Your task to perform on an android device: How much does a 2 bedroom apartment rent for in San Francisco? Image 0: 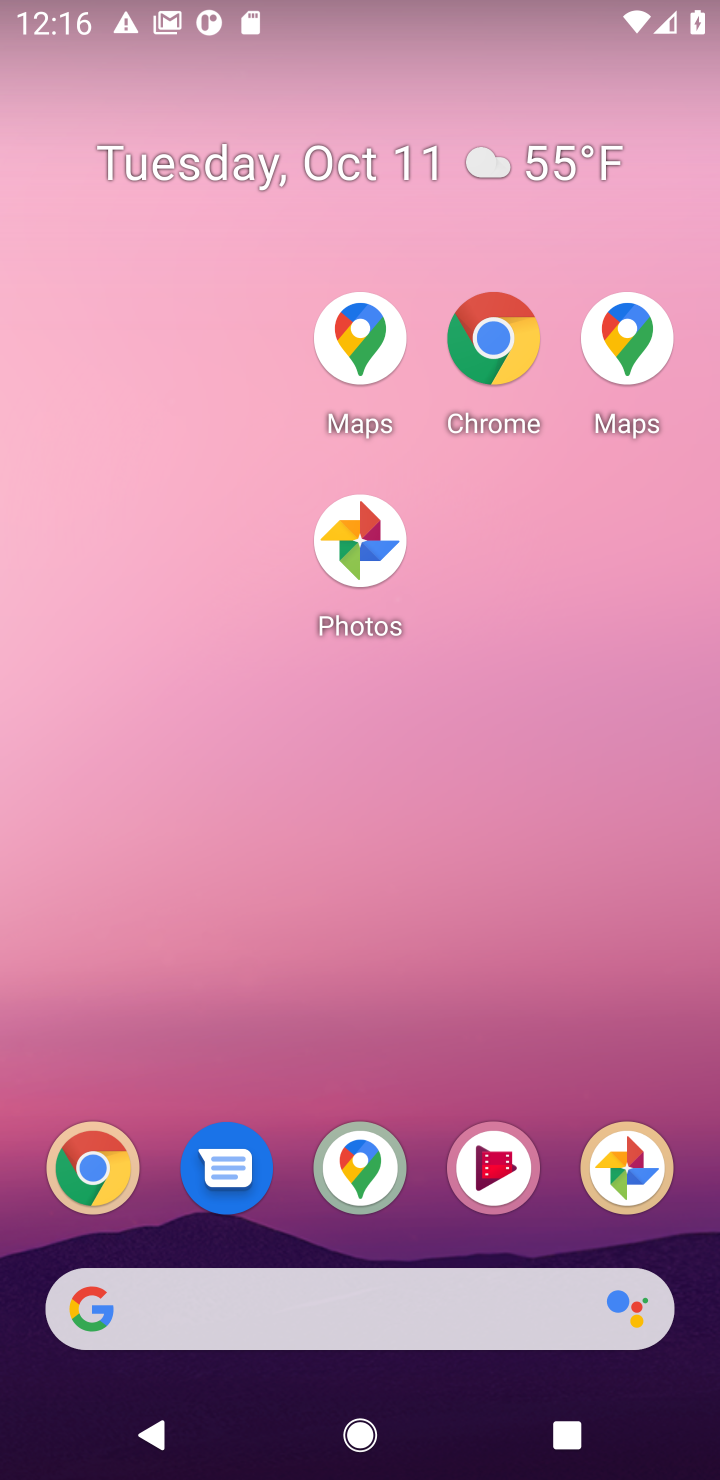
Step 0: drag from (375, 1216) to (375, 532)
Your task to perform on an android device: How much does a 2 bedroom apartment rent for in San Francisco? Image 1: 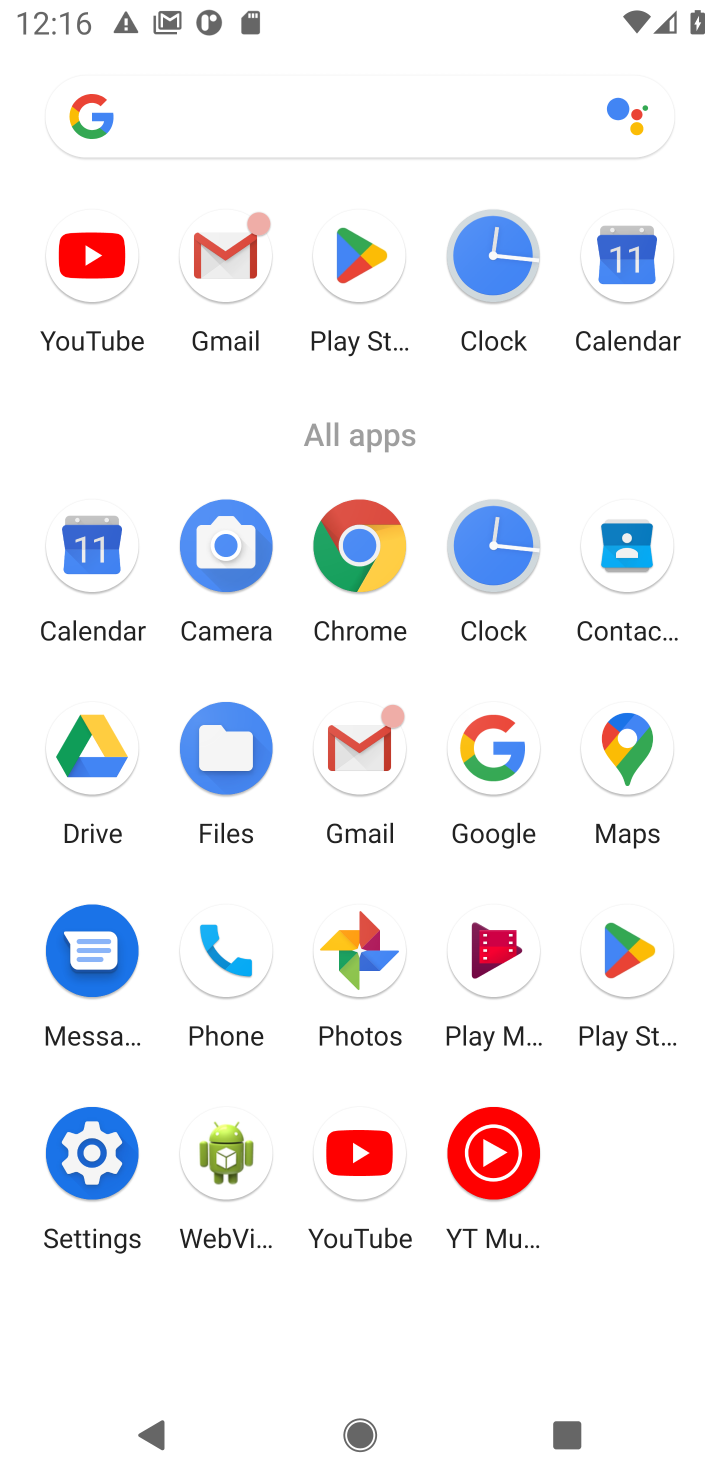
Step 1: drag from (597, 1464) to (719, 949)
Your task to perform on an android device: How much does a 2 bedroom apartment rent for in San Francisco? Image 2: 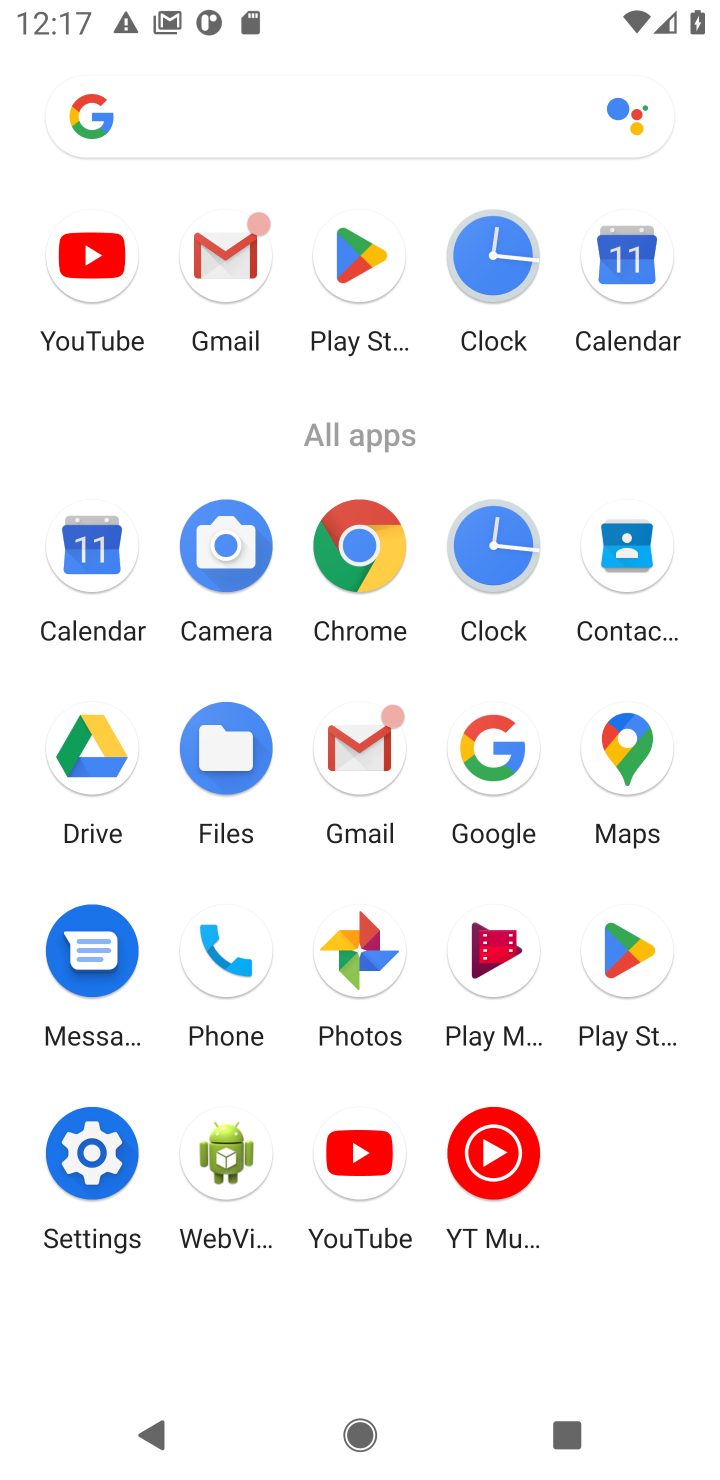
Step 2: click (528, 775)
Your task to perform on an android device: How much does a 2 bedroom apartment rent for in San Francisco? Image 3: 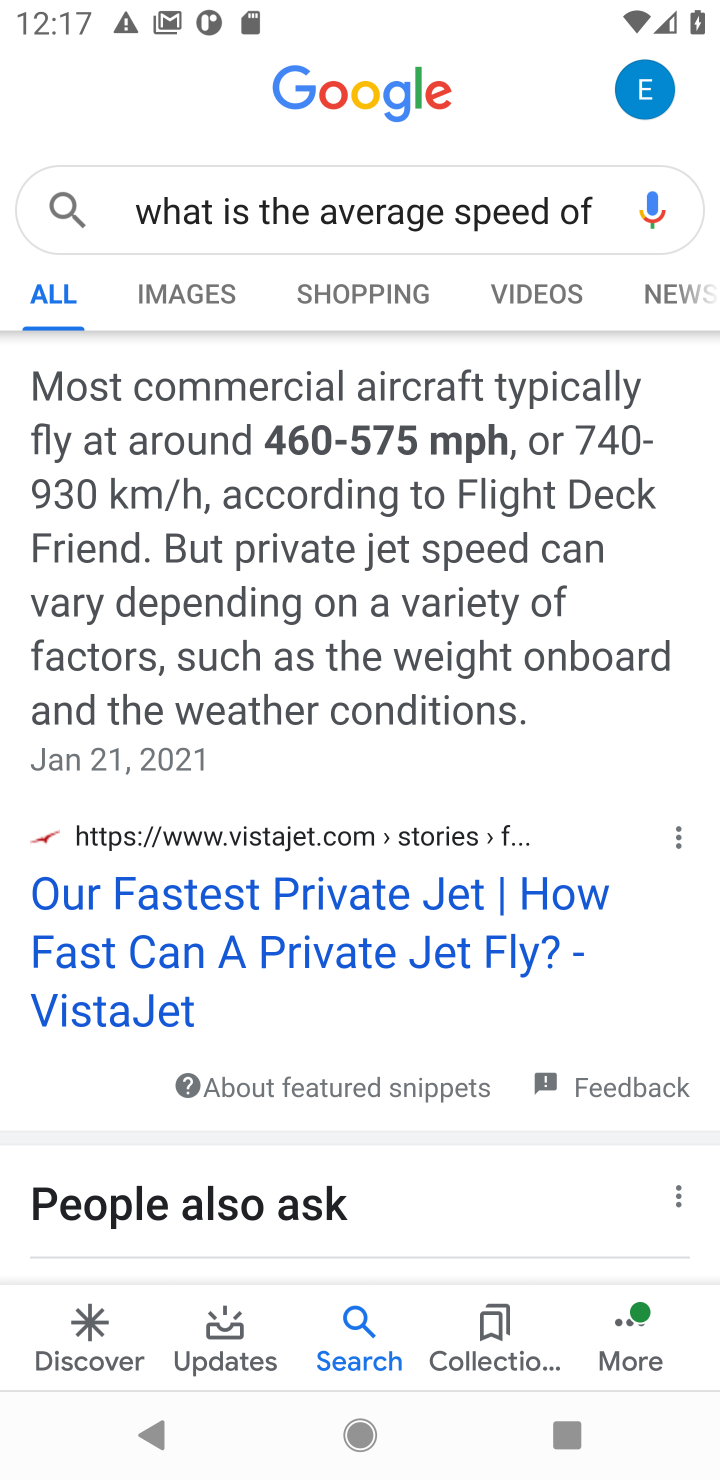
Step 3: click (446, 194)
Your task to perform on an android device: How much does a 2 bedroom apartment rent for in San Francisco? Image 4: 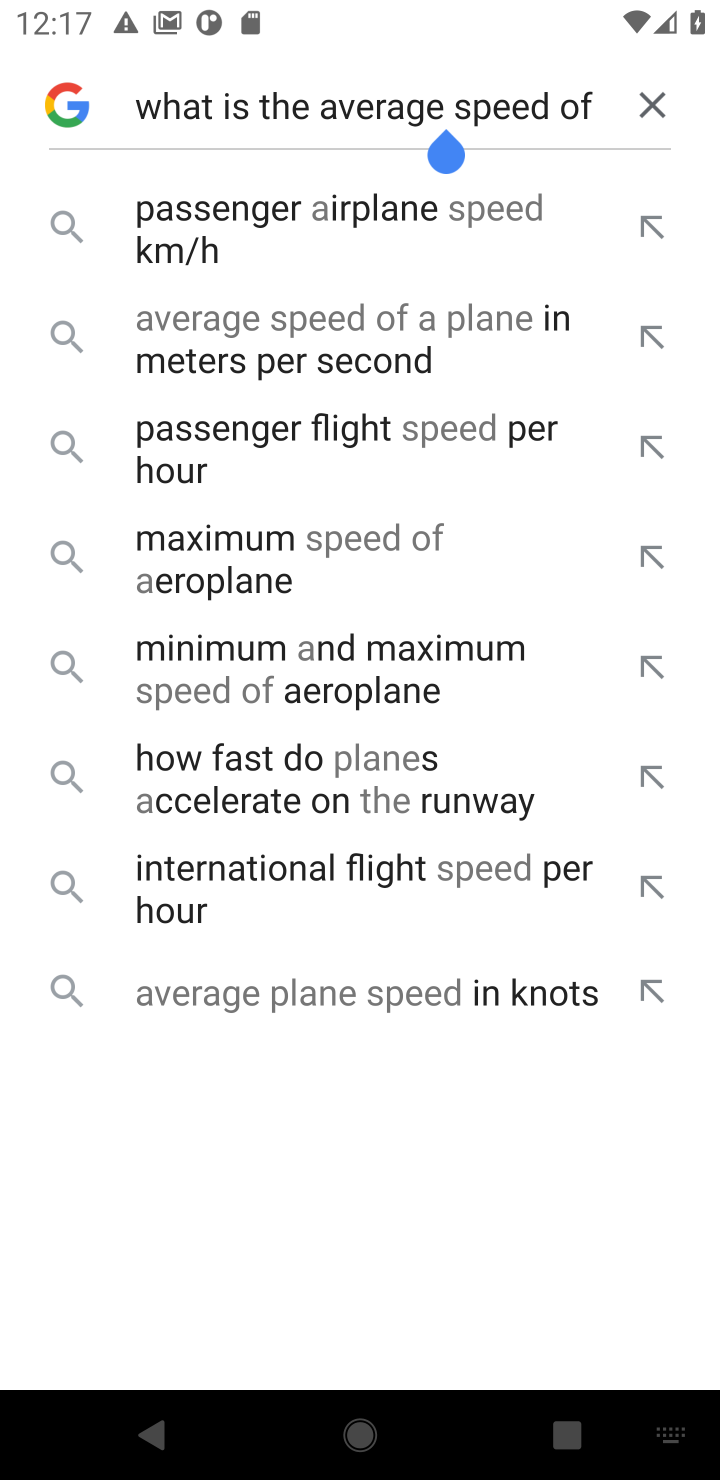
Step 4: click (643, 95)
Your task to perform on an android device: How much does a 2 bedroom apartment rent for in San Francisco? Image 5: 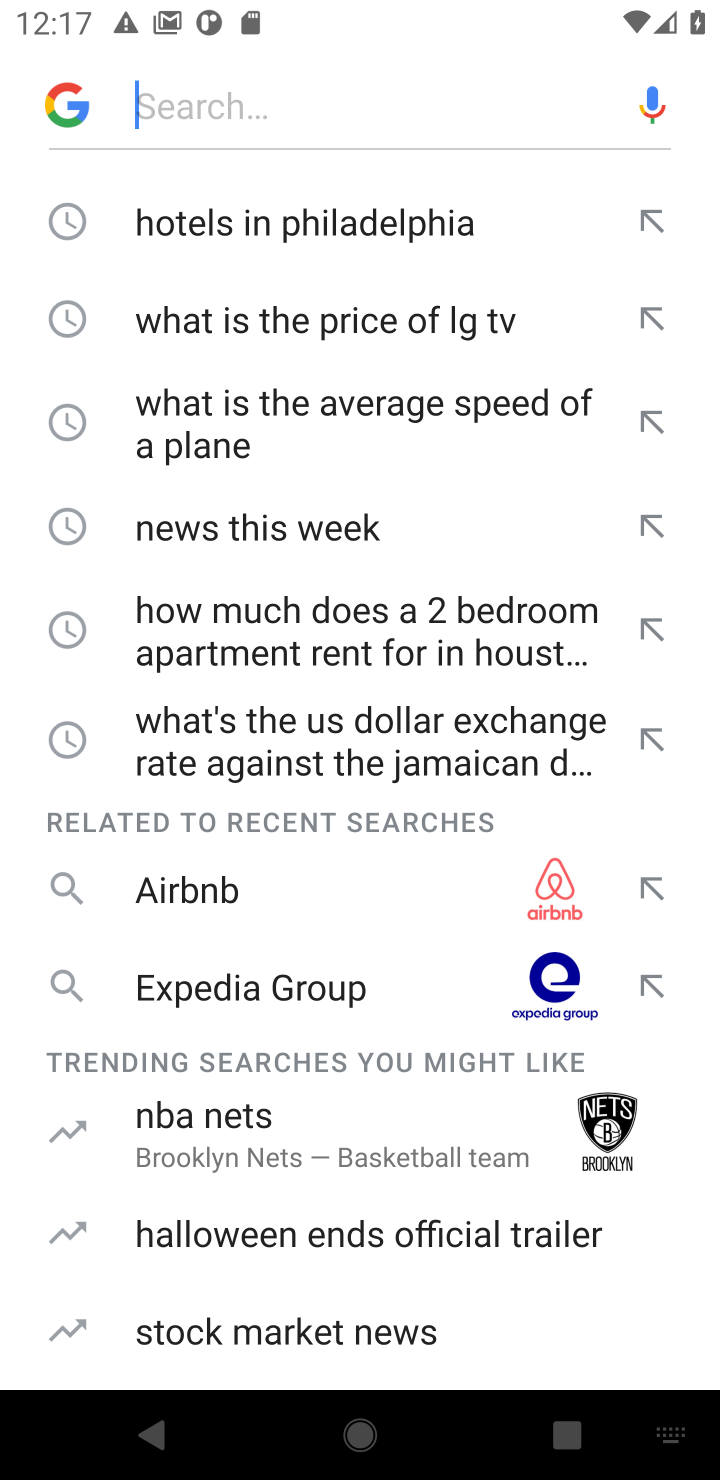
Step 5: type "How much does a 2 bedroom apartment rent for in San Francisco?"
Your task to perform on an android device: How much does a 2 bedroom apartment rent for in San Francisco? Image 6: 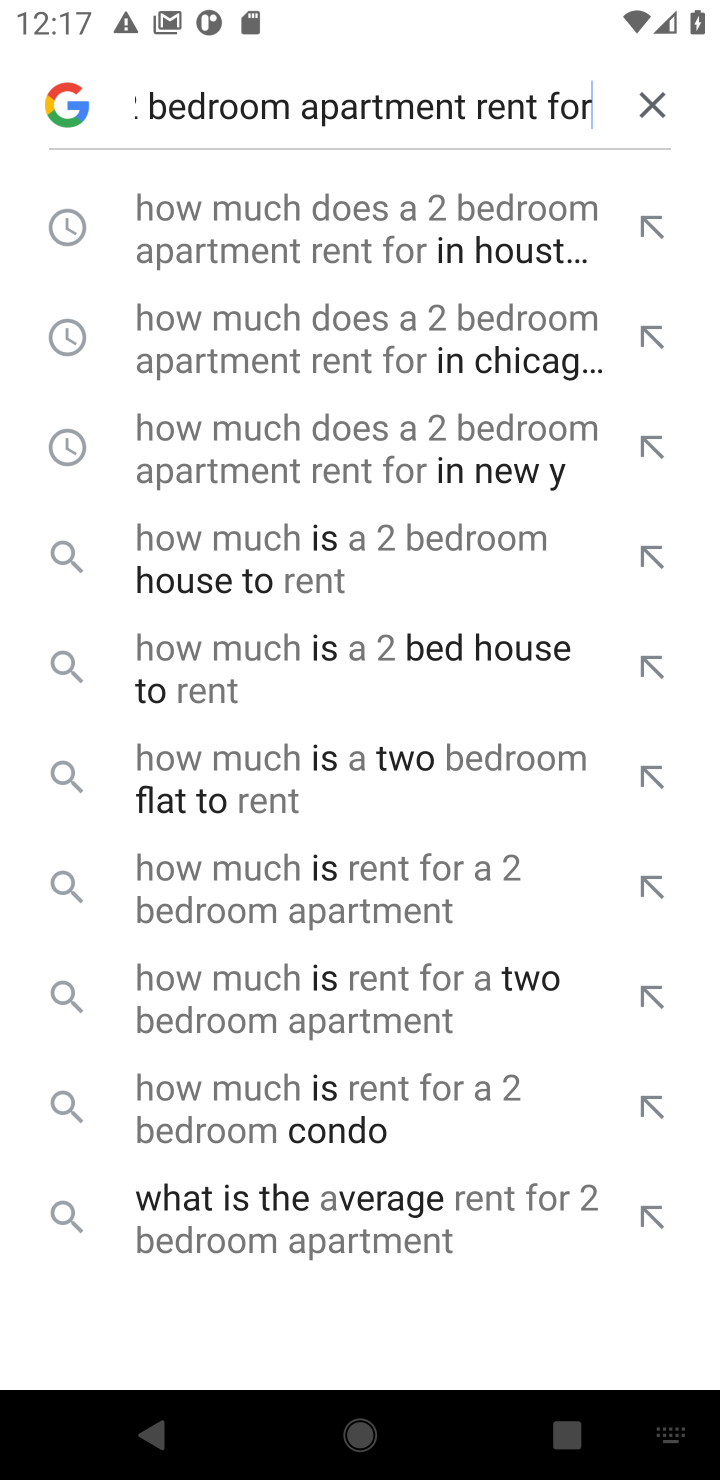
Step 6: click (490, 206)
Your task to perform on an android device: How much does a 2 bedroom apartment rent for in San Francisco? Image 7: 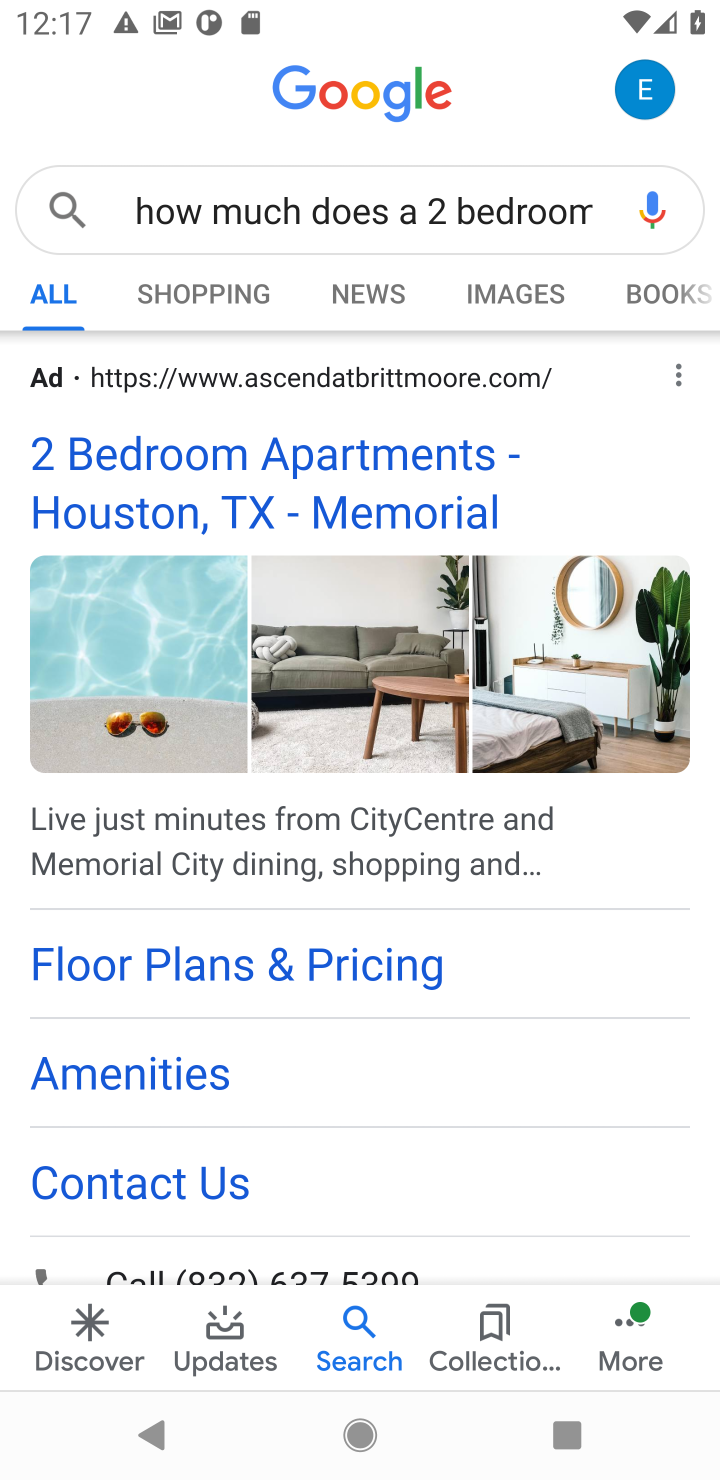
Step 7: task complete